Your task to perform on an android device: see creations saved in the google photos Image 0: 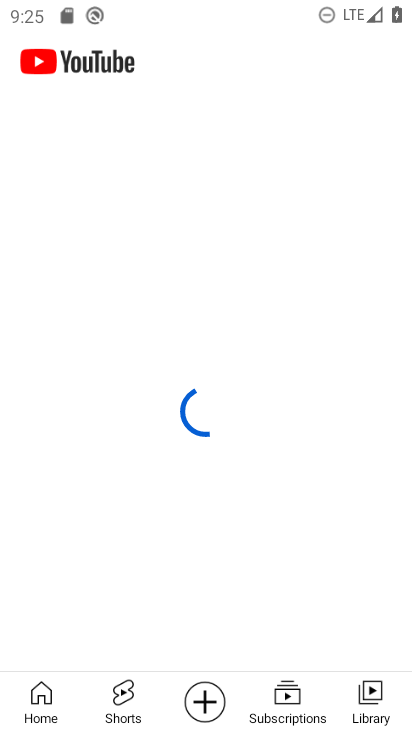
Step 0: drag from (317, 567) to (292, 201)
Your task to perform on an android device: see creations saved in the google photos Image 1: 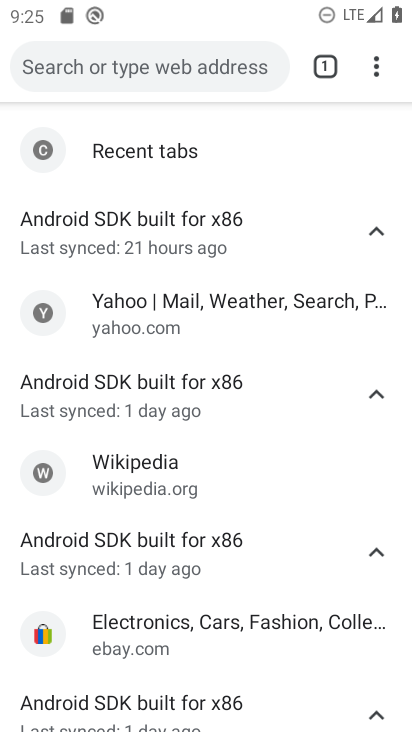
Step 1: press home button
Your task to perform on an android device: see creations saved in the google photos Image 2: 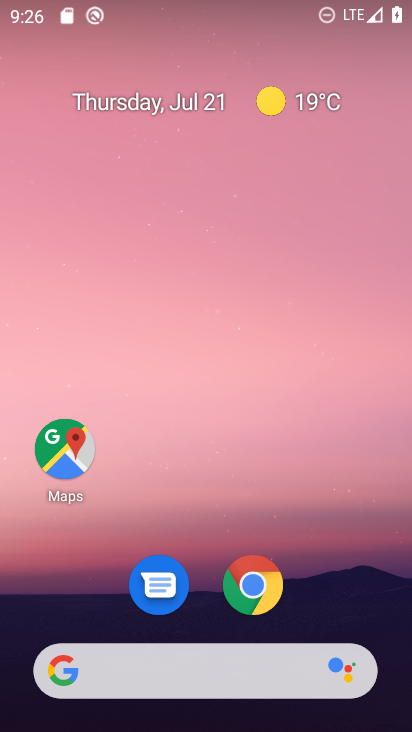
Step 2: drag from (341, 581) to (332, 39)
Your task to perform on an android device: see creations saved in the google photos Image 3: 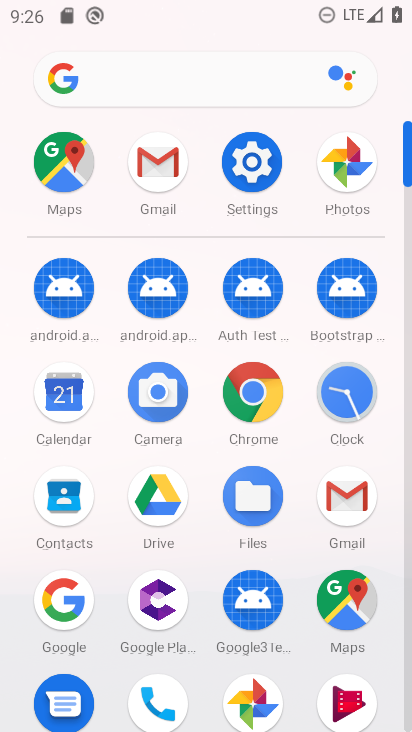
Step 3: click (346, 167)
Your task to perform on an android device: see creations saved in the google photos Image 4: 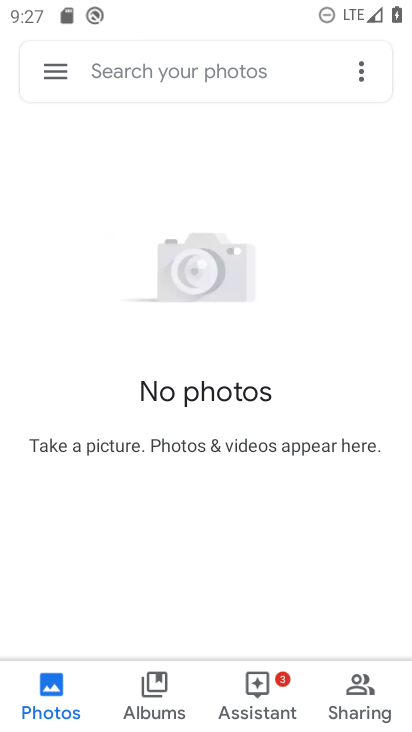
Step 4: click (232, 67)
Your task to perform on an android device: see creations saved in the google photos Image 5: 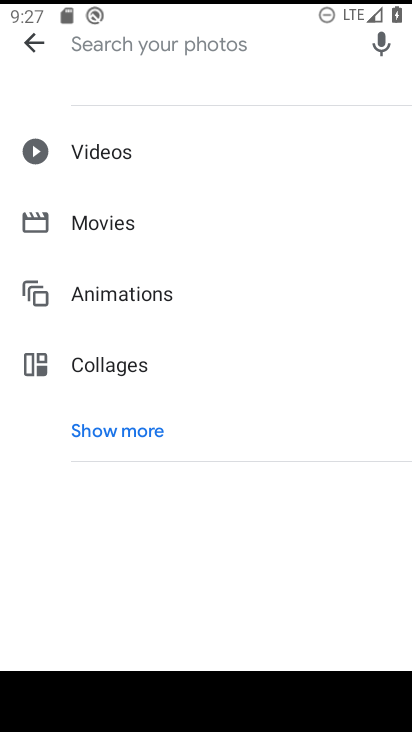
Step 5: click (140, 422)
Your task to perform on an android device: see creations saved in the google photos Image 6: 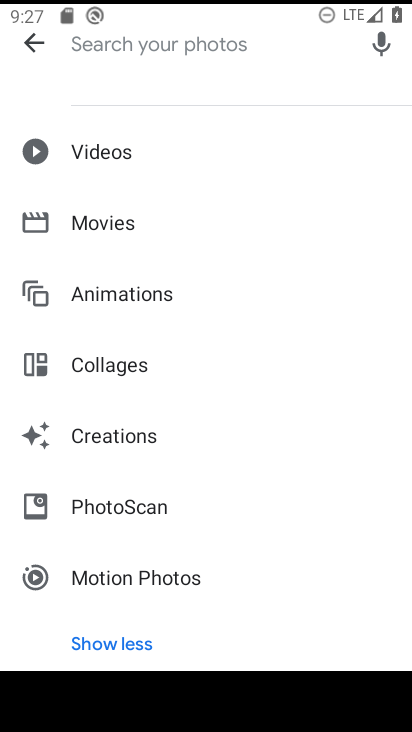
Step 6: click (128, 441)
Your task to perform on an android device: see creations saved in the google photos Image 7: 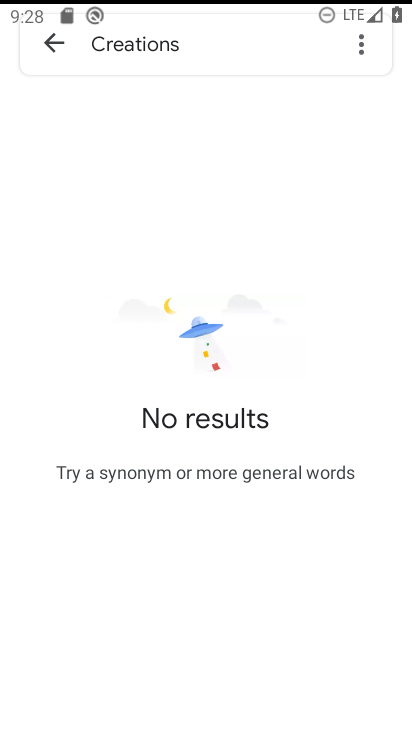
Step 7: task complete